Your task to perform on an android device: install app "Google News" Image 0: 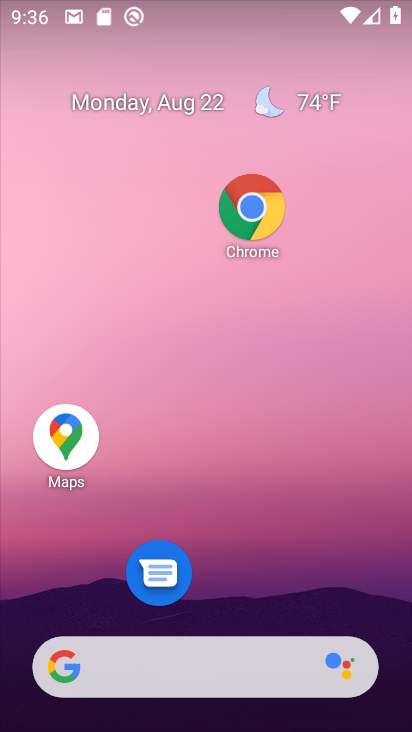
Step 0: click (350, 148)
Your task to perform on an android device: install app "Google News" Image 1: 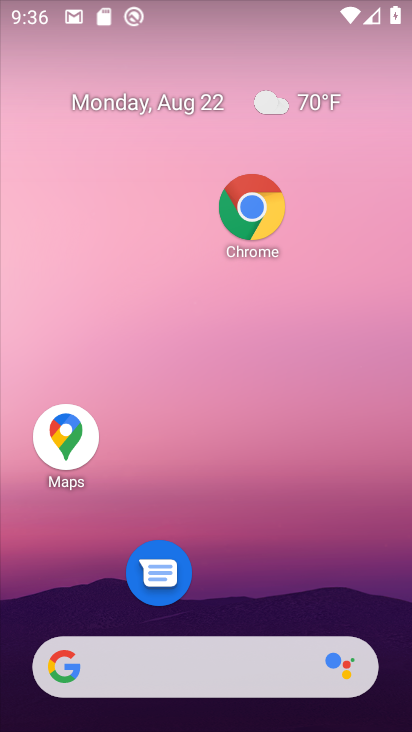
Step 1: drag from (262, 560) to (221, 19)
Your task to perform on an android device: install app "Google News" Image 2: 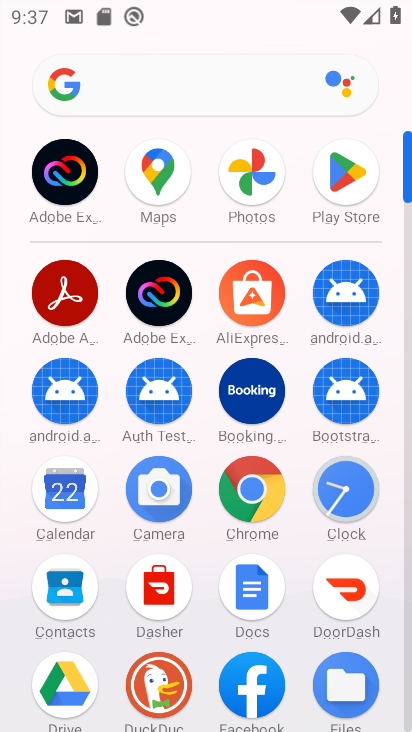
Step 2: click (358, 170)
Your task to perform on an android device: install app "Google News" Image 3: 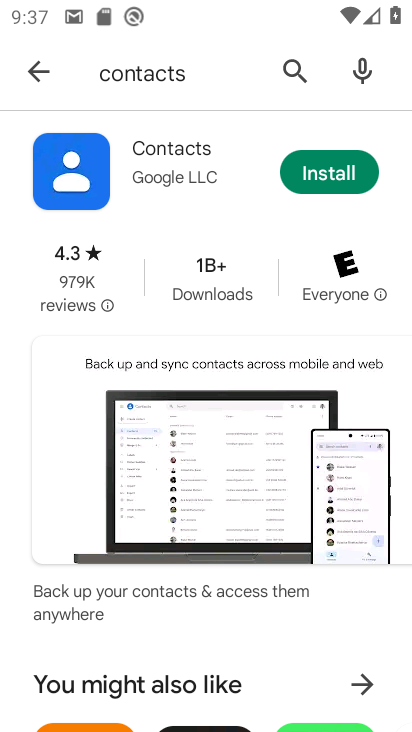
Step 3: click (132, 75)
Your task to perform on an android device: install app "Google News" Image 4: 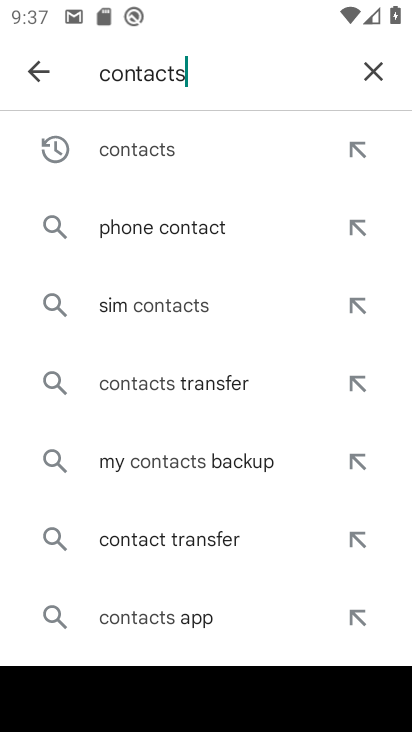
Step 4: click (376, 70)
Your task to perform on an android device: install app "Google News" Image 5: 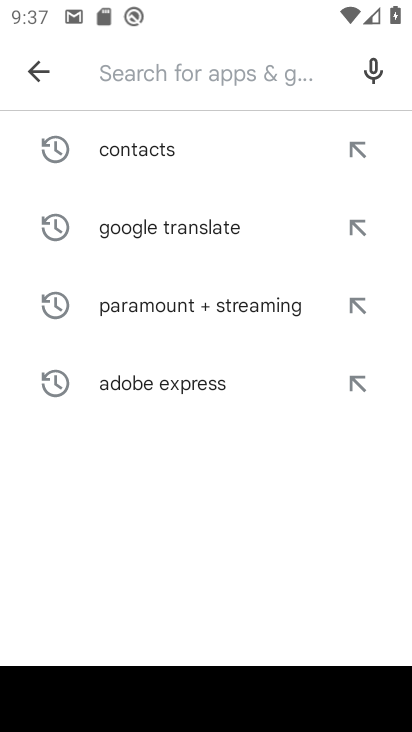
Step 5: type "google news"
Your task to perform on an android device: install app "Google News" Image 6: 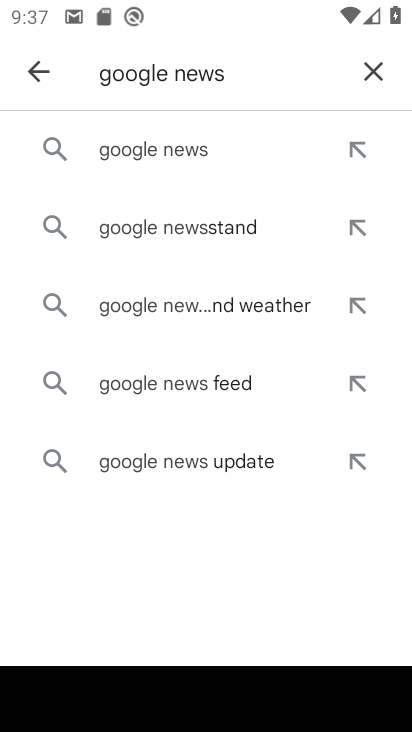
Step 6: click (162, 145)
Your task to perform on an android device: install app "Google News" Image 7: 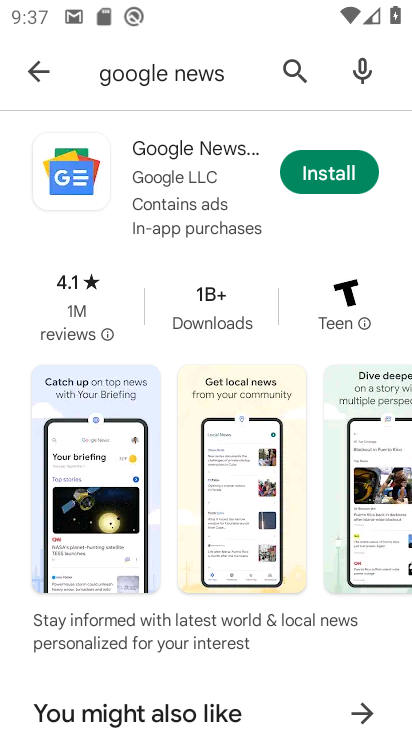
Step 7: click (315, 179)
Your task to perform on an android device: install app "Google News" Image 8: 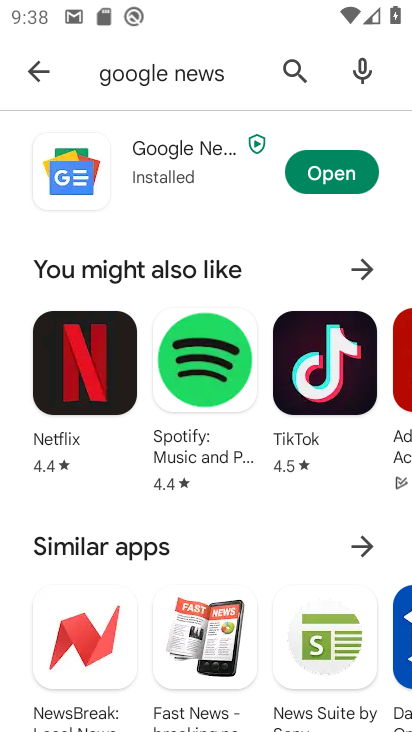
Step 8: task complete